Your task to perform on an android device: uninstall "Google Play Music" Image 0: 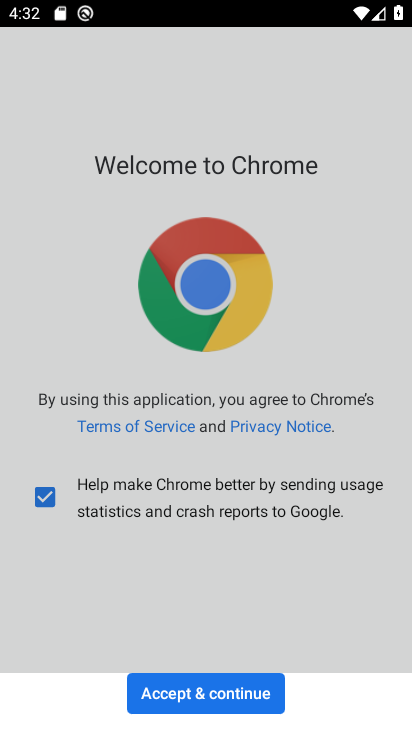
Step 0: press home button
Your task to perform on an android device: uninstall "Google Play Music" Image 1: 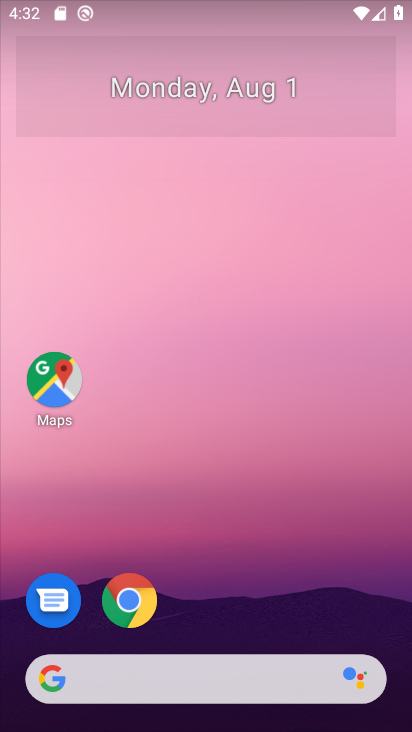
Step 1: drag from (230, 488) to (236, 129)
Your task to perform on an android device: uninstall "Google Play Music" Image 2: 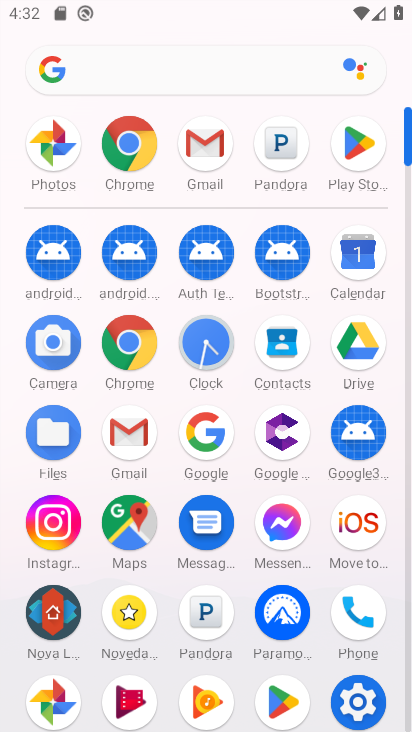
Step 2: click (371, 140)
Your task to perform on an android device: uninstall "Google Play Music" Image 3: 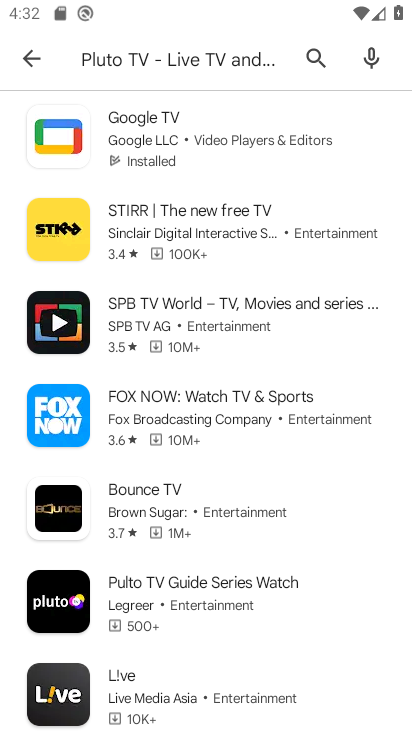
Step 3: click (210, 63)
Your task to perform on an android device: uninstall "Google Play Music" Image 4: 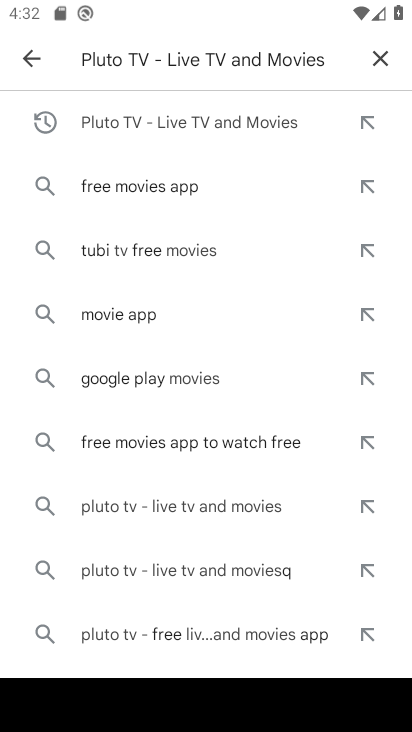
Step 4: click (389, 42)
Your task to perform on an android device: uninstall "Google Play Music" Image 5: 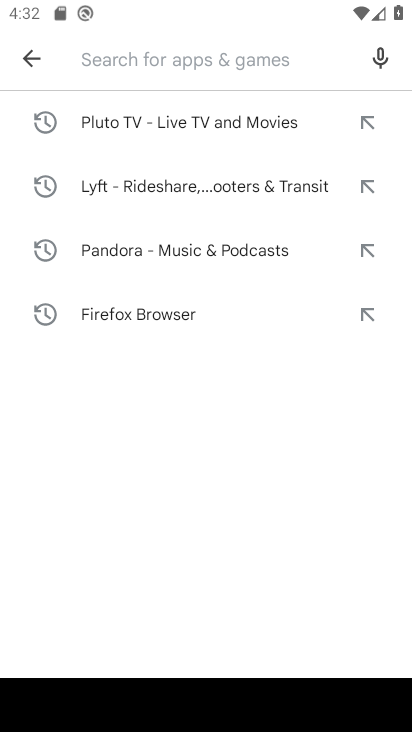
Step 5: type "Google Play Music"
Your task to perform on an android device: uninstall "Google Play Music" Image 6: 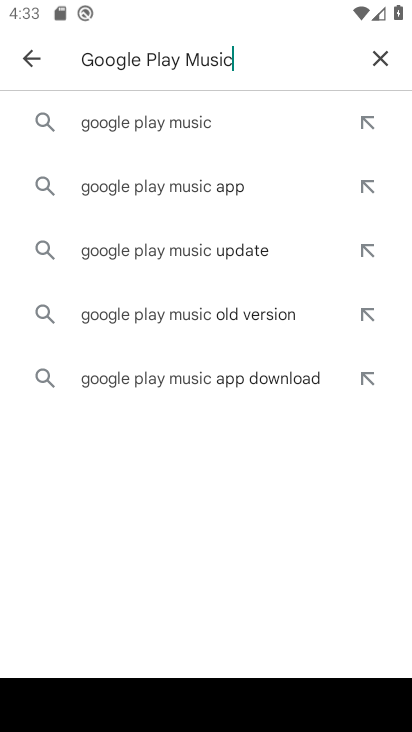
Step 6: press enter
Your task to perform on an android device: uninstall "Google Play Music" Image 7: 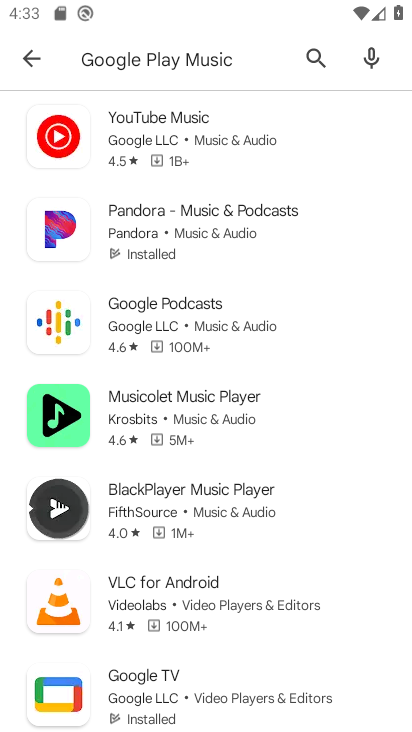
Step 7: click (171, 140)
Your task to perform on an android device: uninstall "Google Play Music" Image 8: 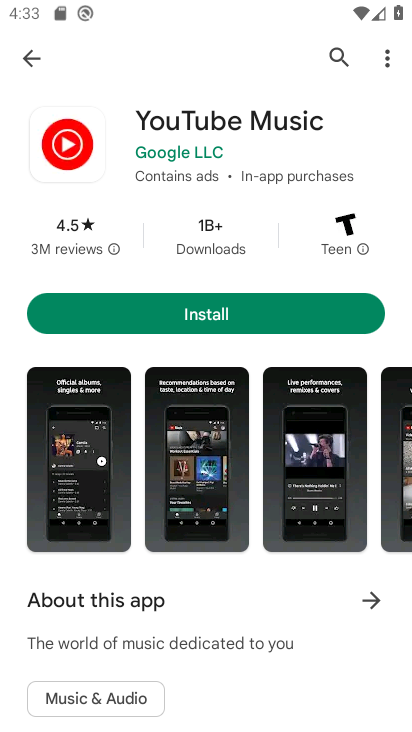
Step 8: task complete